Your task to perform on an android device: toggle notification dots Image 0: 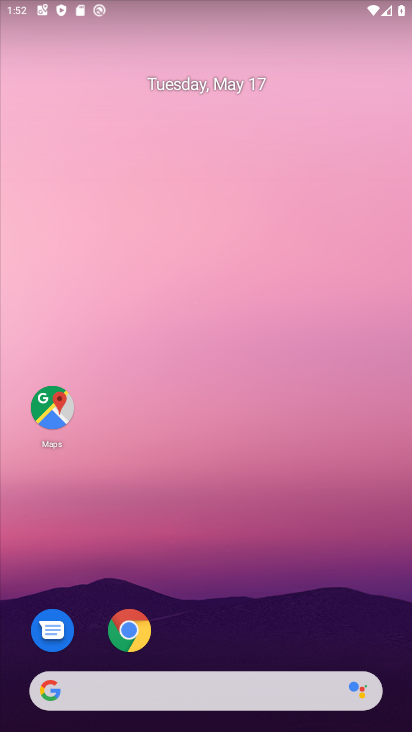
Step 0: drag from (377, 628) to (343, 115)
Your task to perform on an android device: toggle notification dots Image 1: 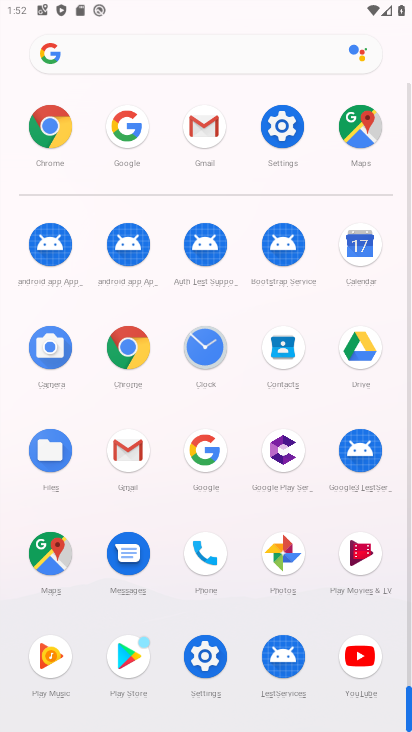
Step 1: click (199, 674)
Your task to perform on an android device: toggle notification dots Image 2: 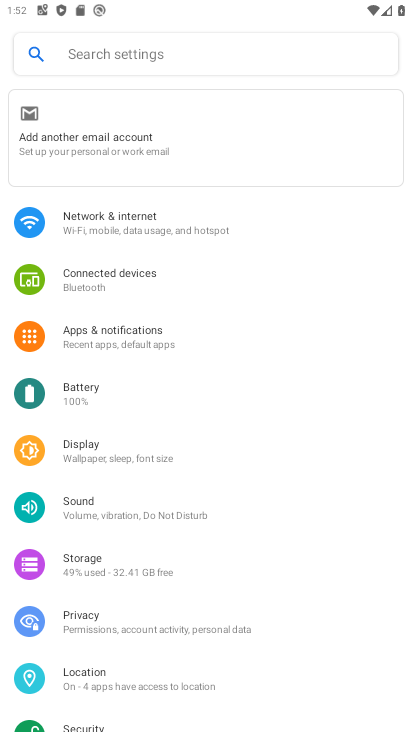
Step 2: click (125, 334)
Your task to perform on an android device: toggle notification dots Image 3: 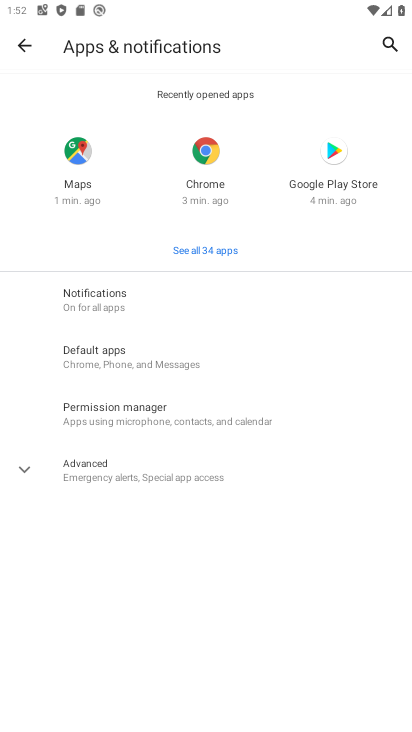
Step 3: drag from (290, 639) to (283, 204)
Your task to perform on an android device: toggle notification dots Image 4: 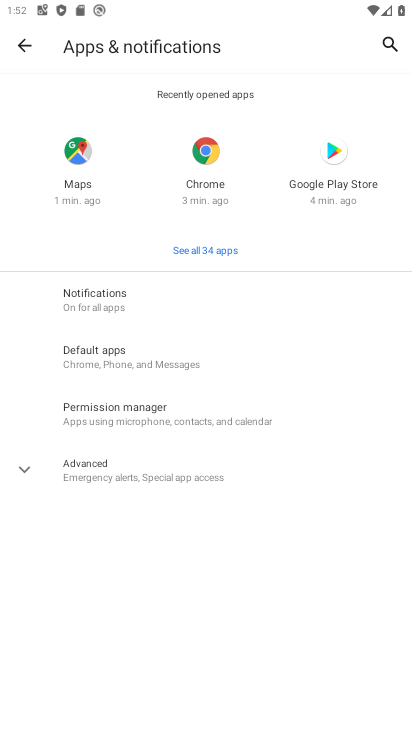
Step 4: click (148, 471)
Your task to perform on an android device: toggle notification dots Image 5: 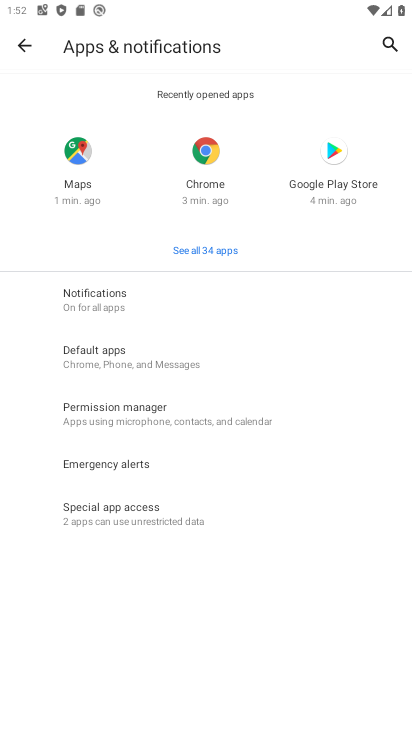
Step 5: click (73, 299)
Your task to perform on an android device: toggle notification dots Image 6: 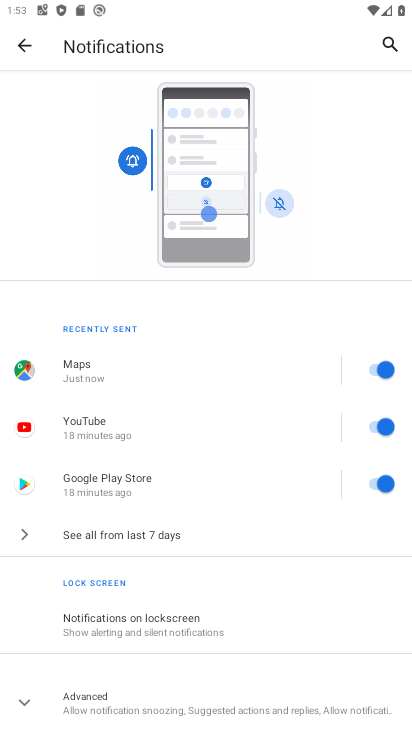
Step 6: drag from (161, 528) to (185, 436)
Your task to perform on an android device: toggle notification dots Image 7: 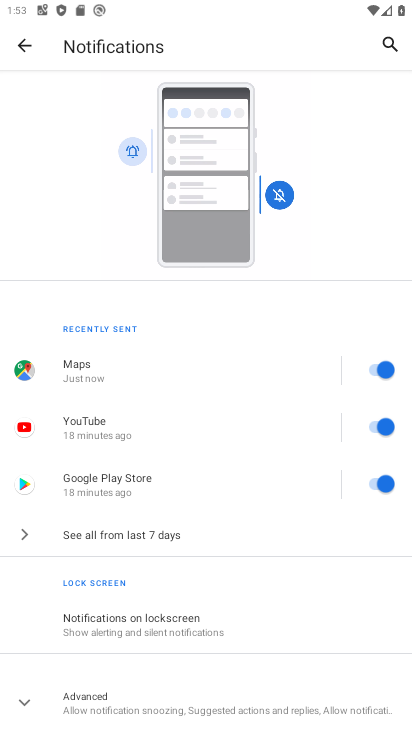
Step 7: click (136, 695)
Your task to perform on an android device: toggle notification dots Image 8: 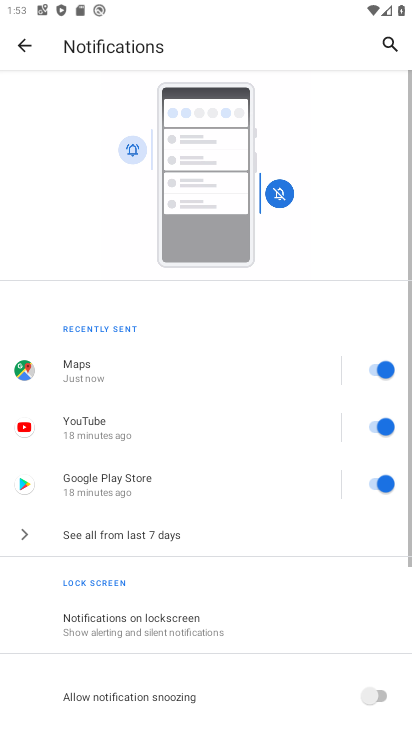
Step 8: task complete